Your task to perform on an android device: open a bookmark in the chrome app Image 0: 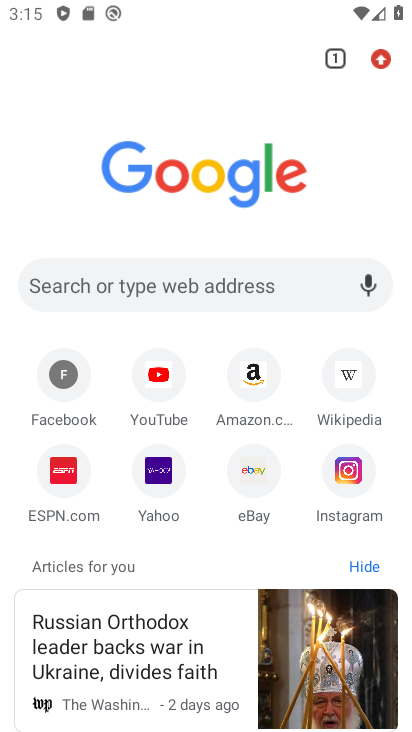
Step 0: click (376, 64)
Your task to perform on an android device: open a bookmark in the chrome app Image 1: 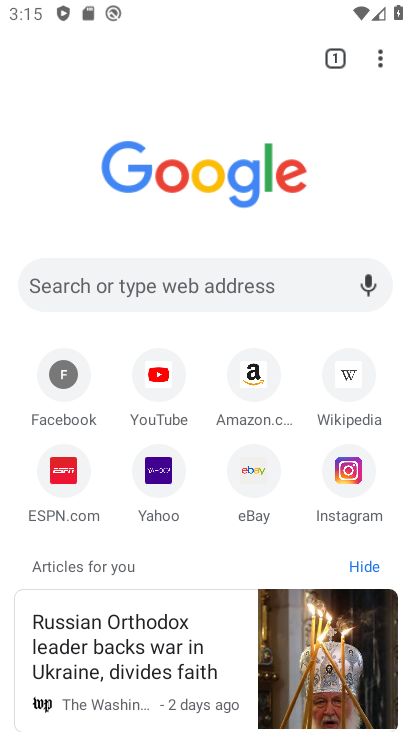
Step 1: click (386, 63)
Your task to perform on an android device: open a bookmark in the chrome app Image 2: 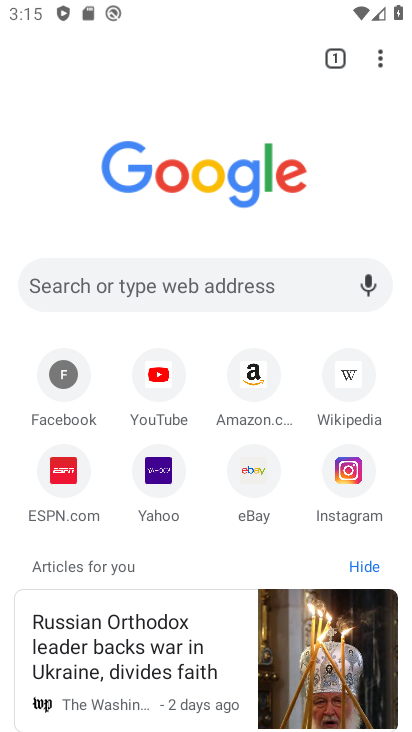
Step 2: click (382, 69)
Your task to perform on an android device: open a bookmark in the chrome app Image 3: 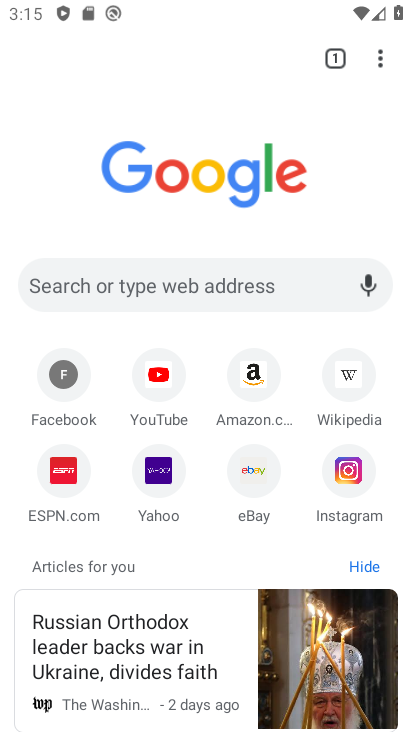
Step 3: click (382, 69)
Your task to perform on an android device: open a bookmark in the chrome app Image 4: 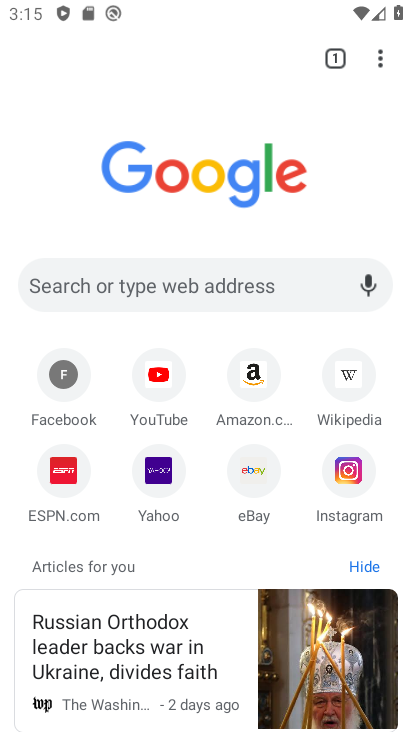
Step 4: click (382, 69)
Your task to perform on an android device: open a bookmark in the chrome app Image 5: 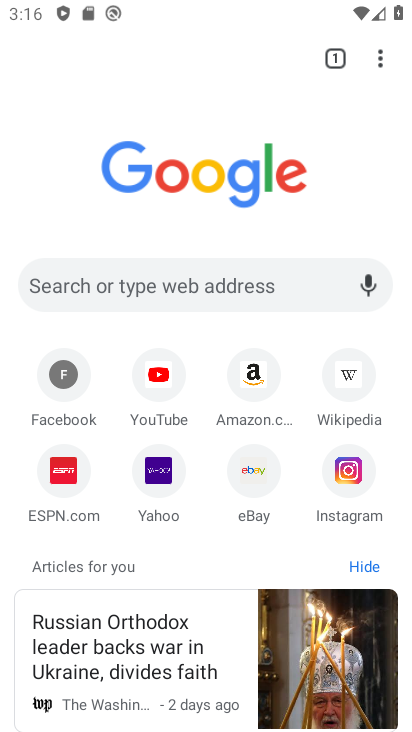
Step 5: click (382, 69)
Your task to perform on an android device: open a bookmark in the chrome app Image 6: 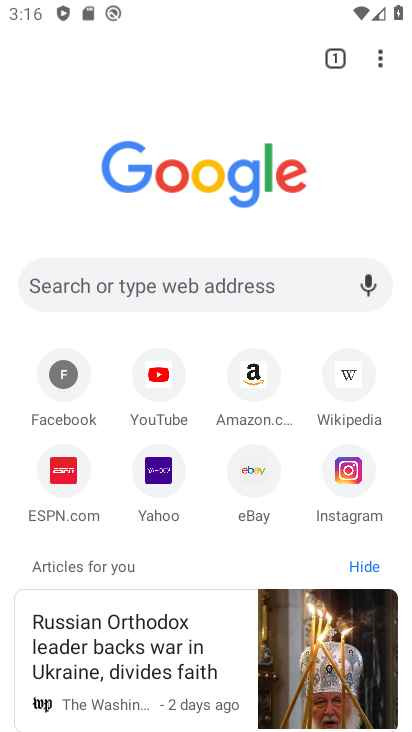
Step 6: click (382, 69)
Your task to perform on an android device: open a bookmark in the chrome app Image 7: 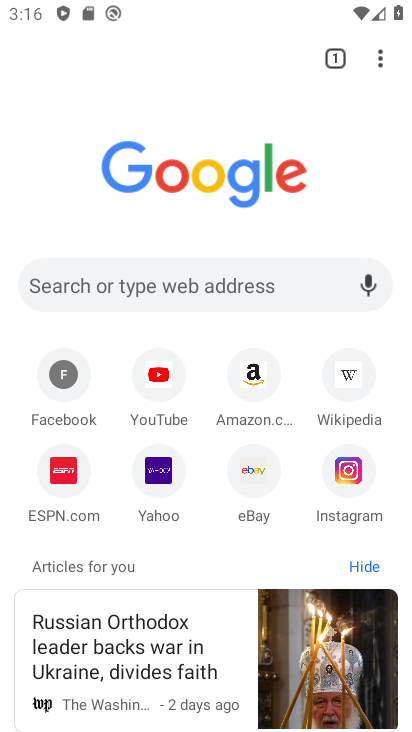
Step 7: click (382, 69)
Your task to perform on an android device: open a bookmark in the chrome app Image 8: 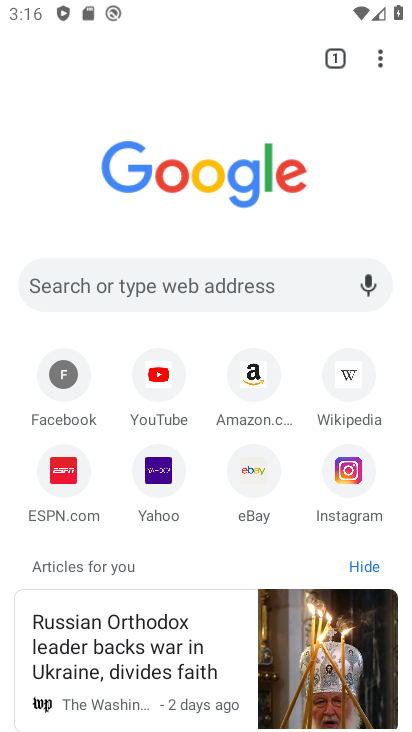
Step 8: click (378, 54)
Your task to perform on an android device: open a bookmark in the chrome app Image 9: 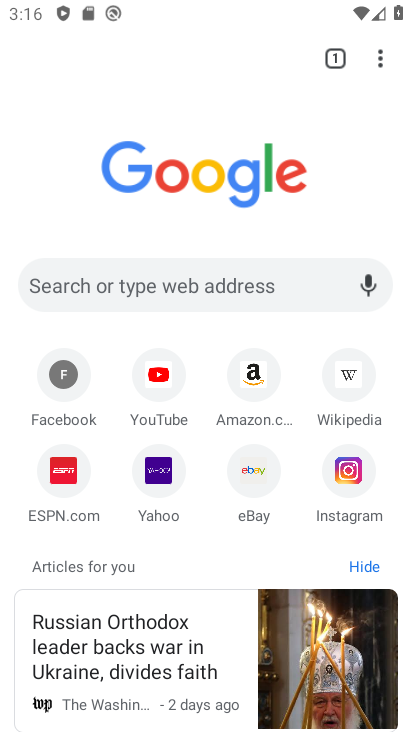
Step 9: click (387, 55)
Your task to perform on an android device: open a bookmark in the chrome app Image 10: 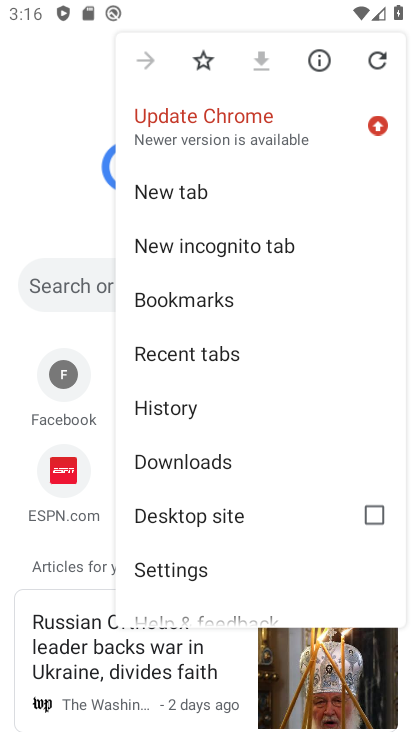
Step 10: click (210, 305)
Your task to perform on an android device: open a bookmark in the chrome app Image 11: 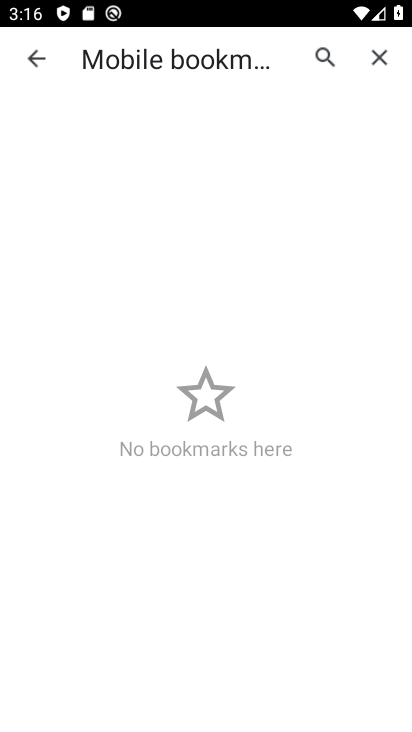
Step 11: task complete